Your task to perform on an android device: Go to Maps Image 0: 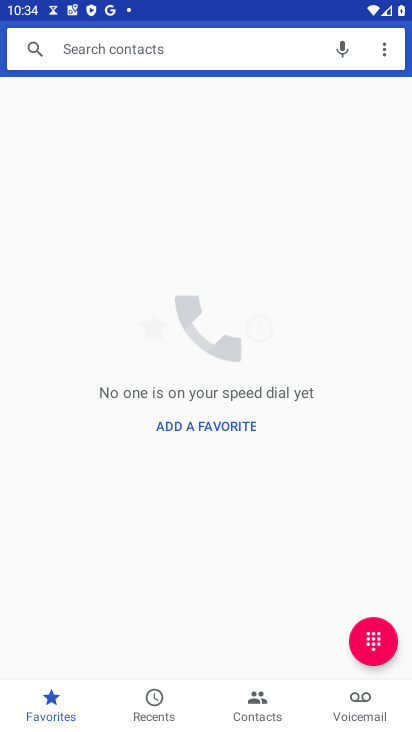
Step 0: press home button
Your task to perform on an android device: Go to Maps Image 1: 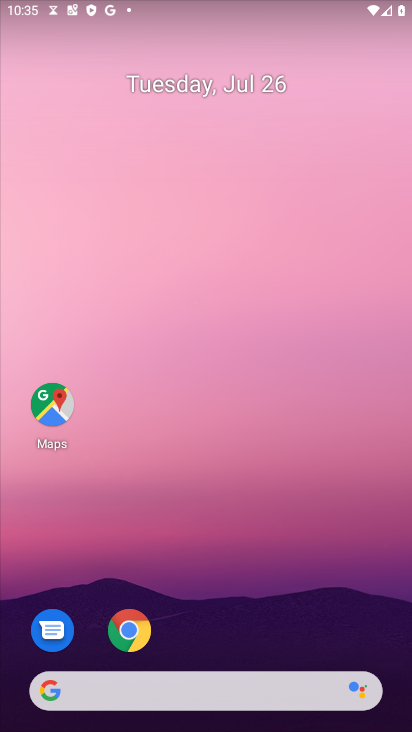
Step 1: click (51, 407)
Your task to perform on an android device: Go to Maps Image 2: 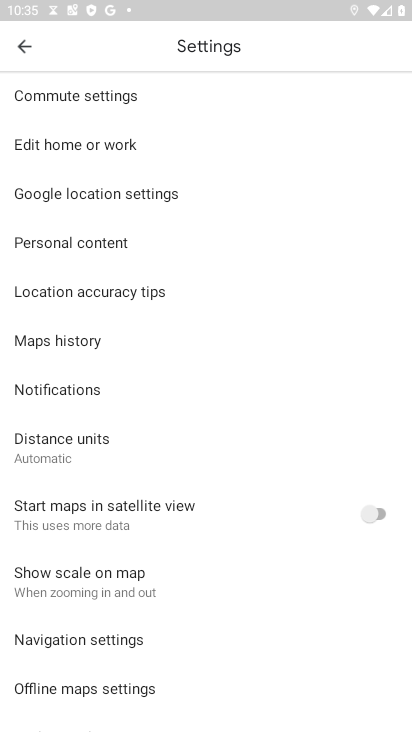
Step 2: task complete